Your task to perform on an android device: visit the assistant section in the google photos Image 0: 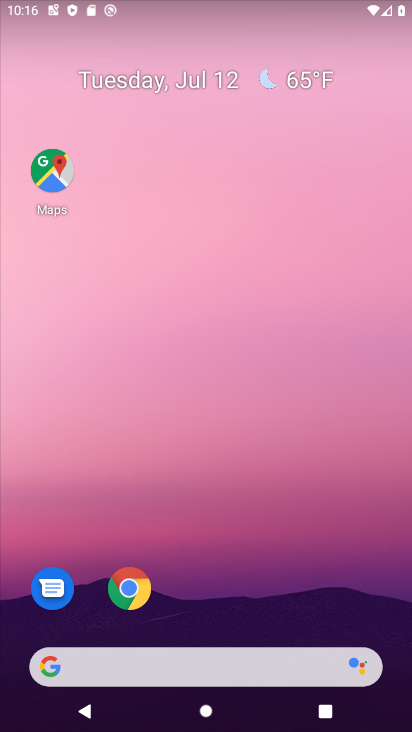
Step 0: drag from (73, 457) to (75, 16)
Your task to perform on an android device: visit the assistant section in the google photos Image 1: 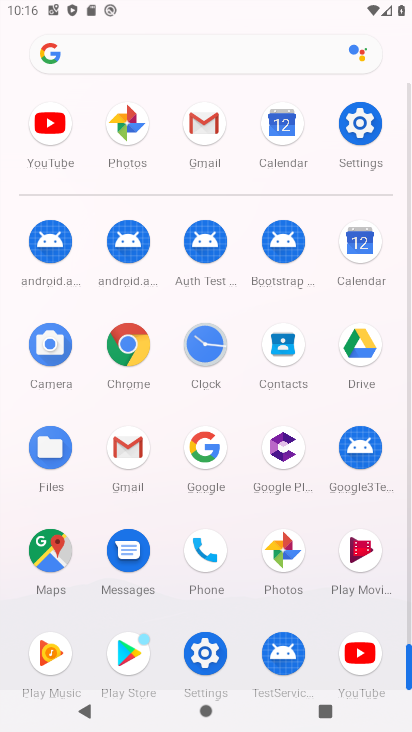
Step 1: click (279, 563)
Your task to perform on an android device: visit the assistant section in the google photos Image 2: 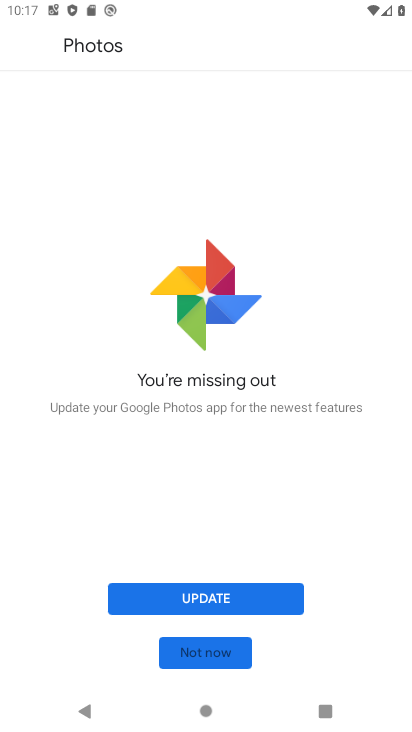
Step 2: click (199, 655)
Your task to perform on an android device: visit the assistant section in the google photos Image 3: 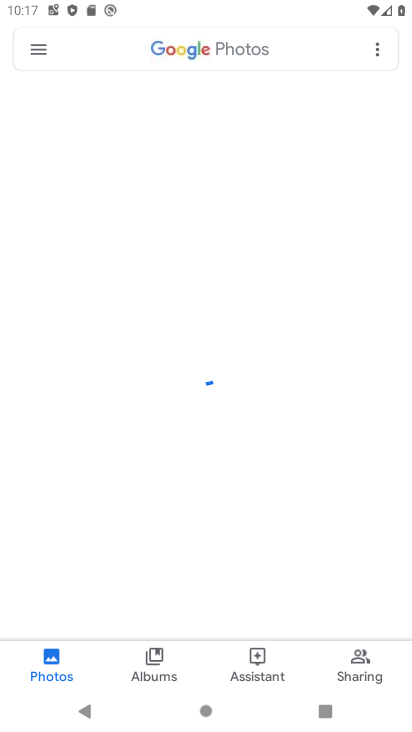
Step 3: click (255, 658)
Your task to perform on an android device: visit the assistant section in the google photos Image 4: 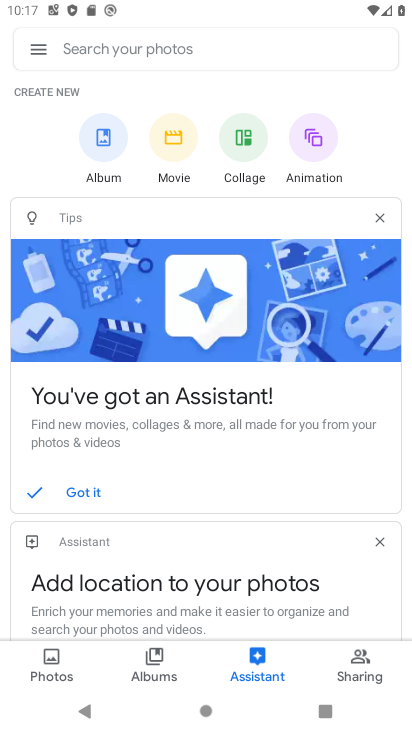
Step 4: task complete